Your task to perform on an android device: find snoozed emails in the gmail app Image 0: 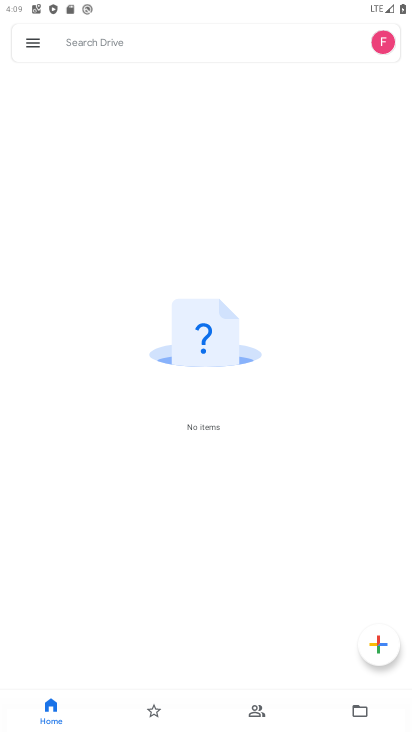
Step 0: press home button
Your task to perform on an android device: find snoozed emails in the gmail app Image 1: 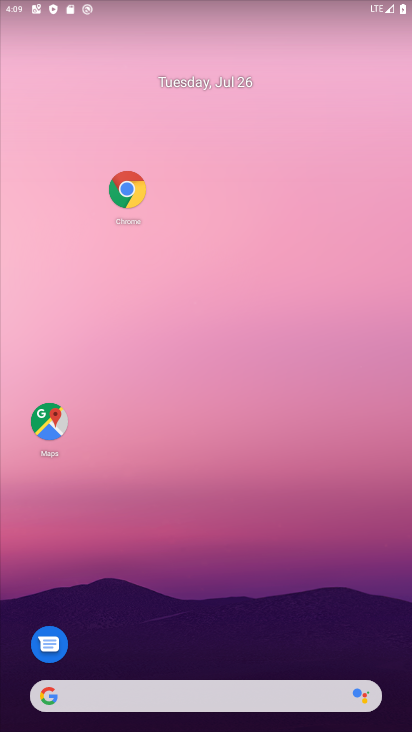
Step 1: drag from (220, 676) to (265, 326)
Your task to perform on an android device: find snoozed emails in the gmail app Image 2: 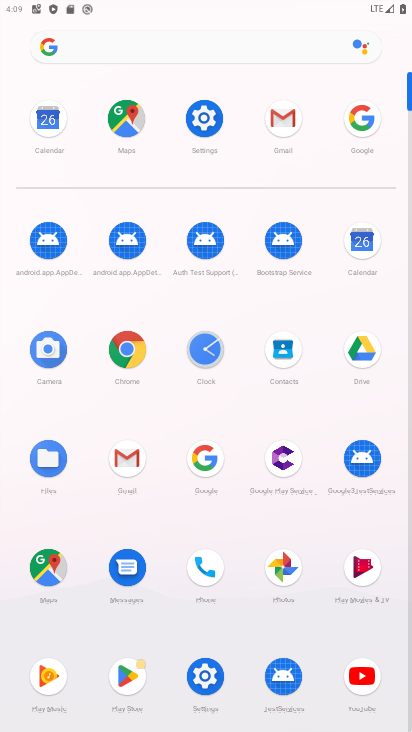
Step 2: click (124, 479)
Your task to perform on an android device: find snoozed emails in the gmail app Image 3: 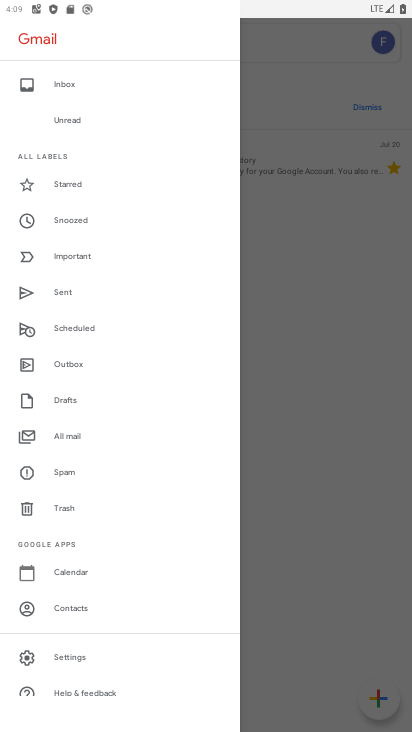
Step 3: click (79, 222)
Your task to perform on an android device: find snoozed emails in the gmail app Image 4: 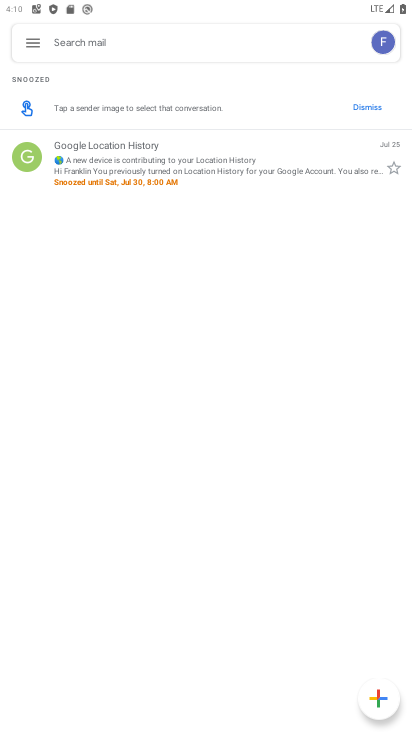
Step 4: task complete